Your task to perform on an android device: see creations saved in the google photos Image 0: 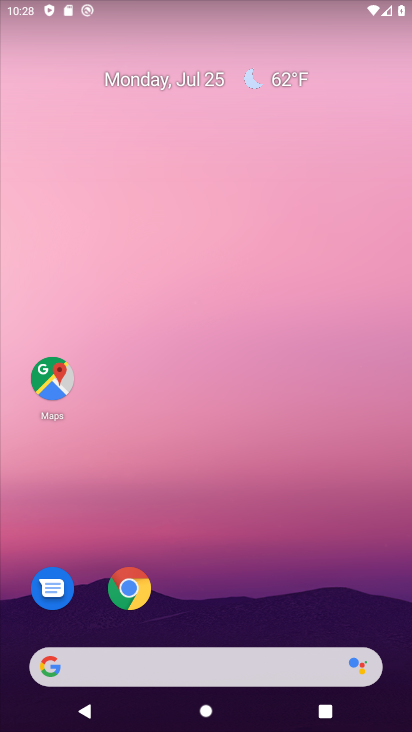
Step 0: drag from (42, 527) to (237, 69)
Your task to perform on an android device: see creations saved in the google photos Image 1: 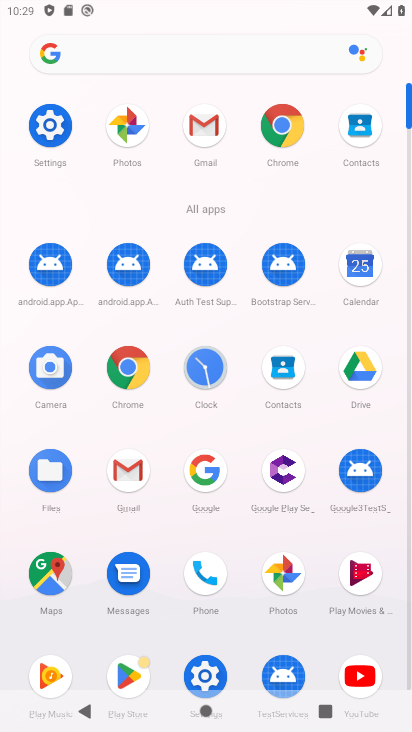
Step 1: click (122, 122)
Your task to perform on an android device: see creations saved in the google photos Image 2: 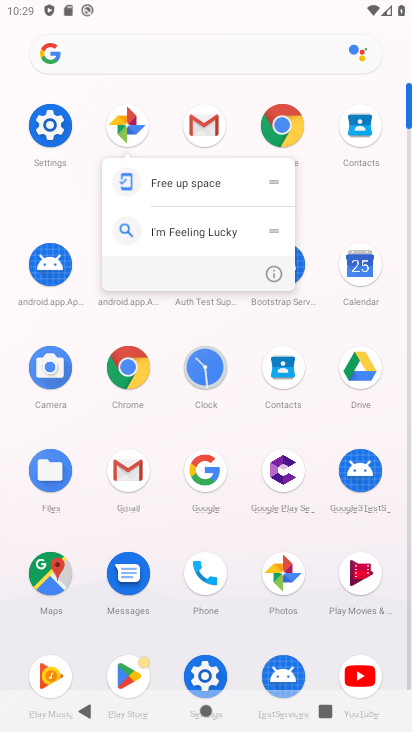
Step 2: click (123, 127)
Your task to perform on an android device: see creations saved in the google photos Image 3: 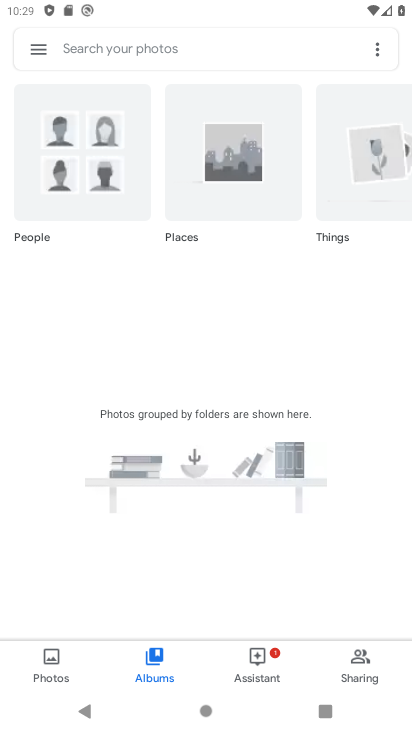
Step 3: click (160, 40)
Your task to perform on an android device: see creations saved in the google photos Image 4: 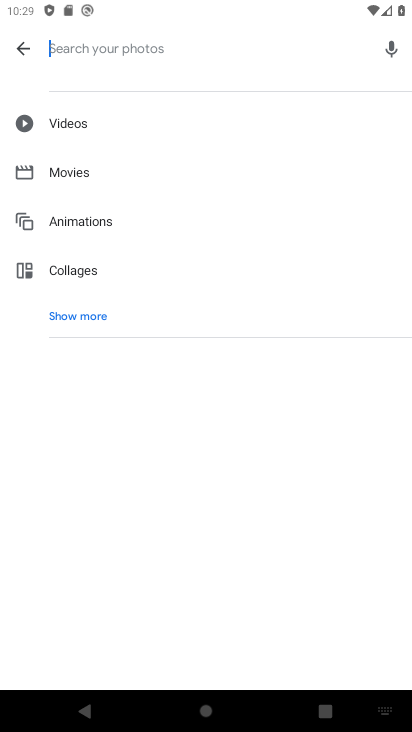
Step 4: click (84, 312)
Your task to perform on an android device: see creations saved in the google photos Image 5: 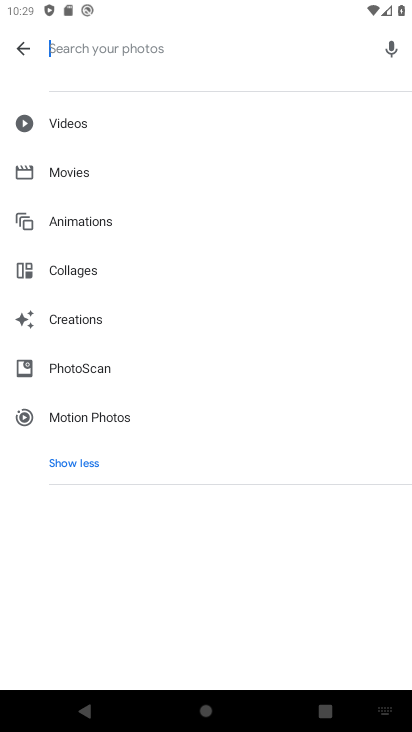
Step 5: click (82, 314)
Your task to perform on an android device: see creations saved in the google photos Image 6: 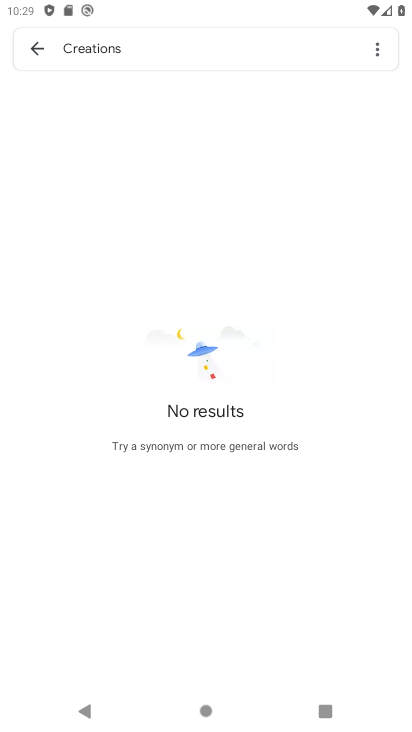
Step 6: task complete